Your task to perform on an android device: See recent photos Image 0: 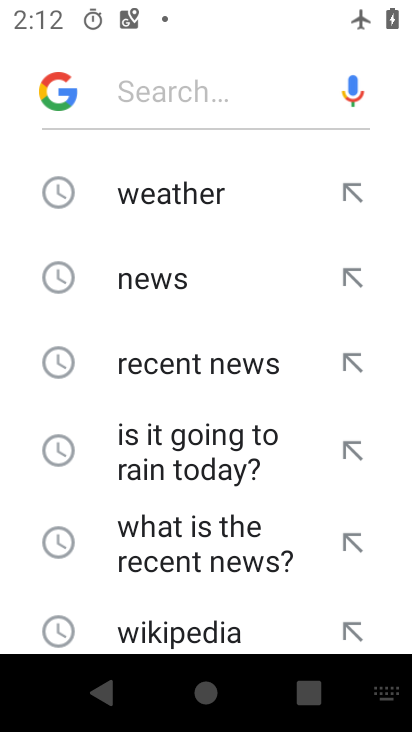
Step 0: press home button
Your task to perform on an android device: See recent photos Image 1: 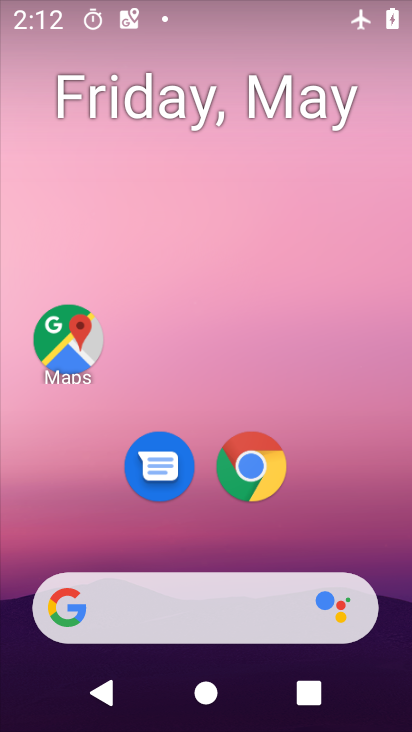
Step 1: drag from (344, 487) to (337, 72)
Your task to perform on an android device: See recent photos Image 2: 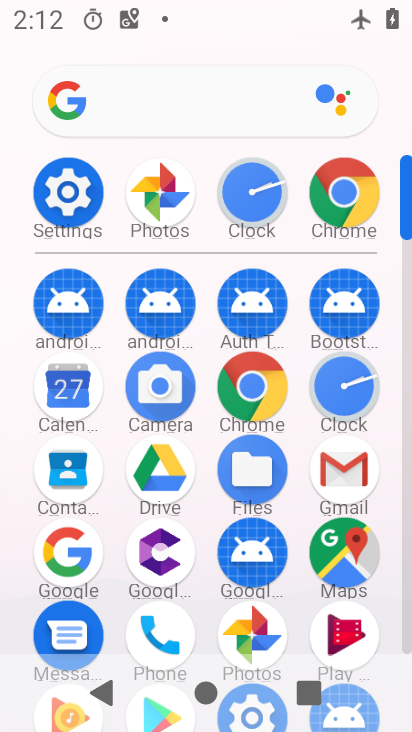
Step 2: click (172, 208)
Your task to perform on an android device: See recent photos Image 3: 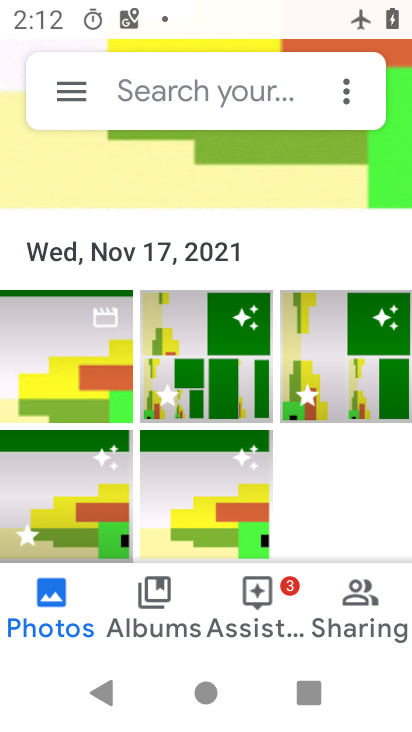
Step 3: task complete